Your task to perform on an android device: open app "Messenger Lite" (install if not already installed) Image 0: 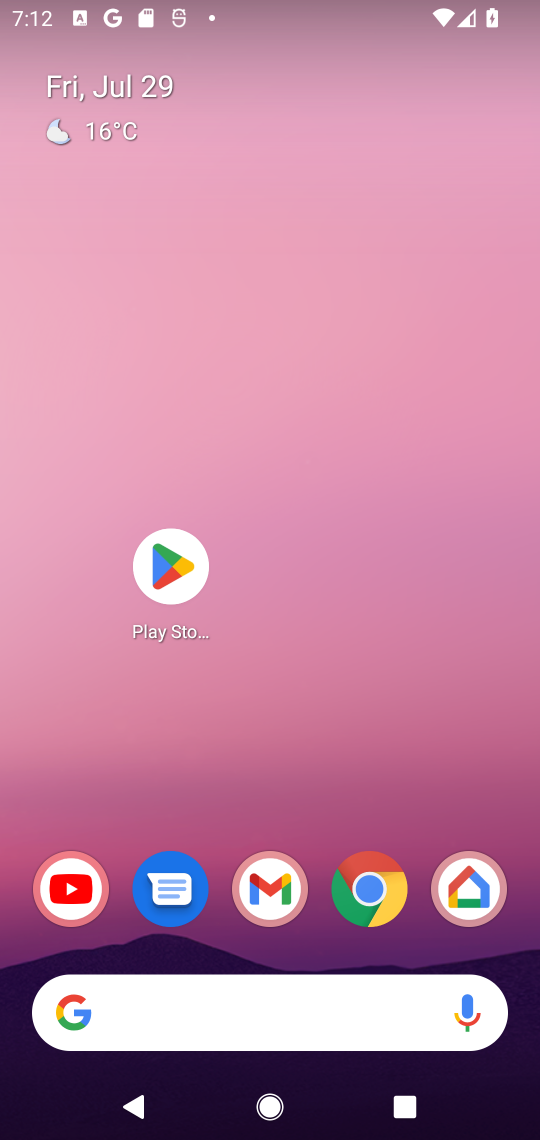
Step 0: press home button
Your task to perform on an android device: open app "Messenger Lite" (install if not already installed) Image 1: 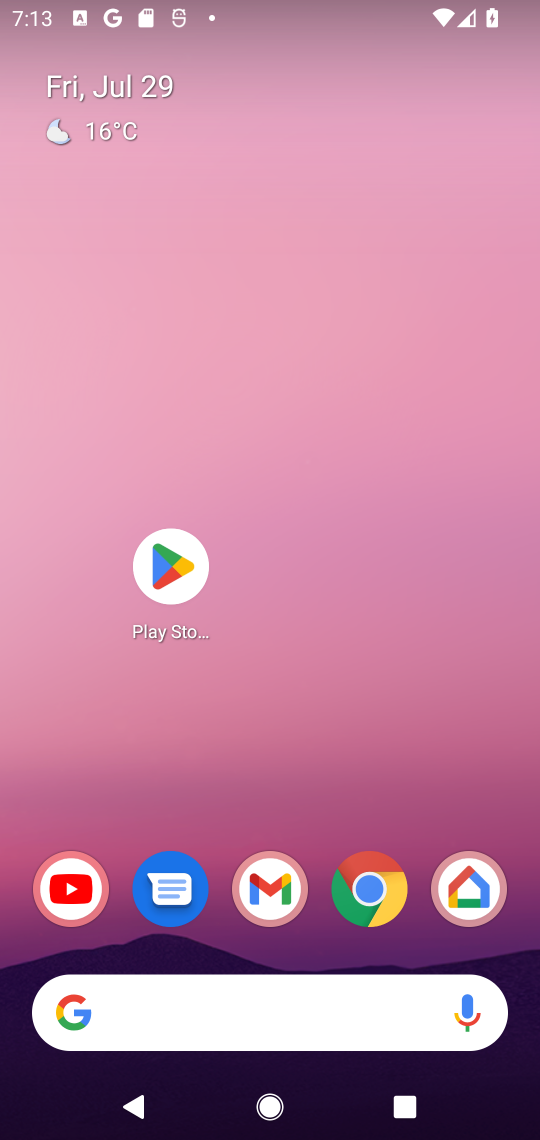
Step 1: click (167, 568)
Your task to perform on an android device: open app "Messenger Lite" (install if not already installed) Image 2: 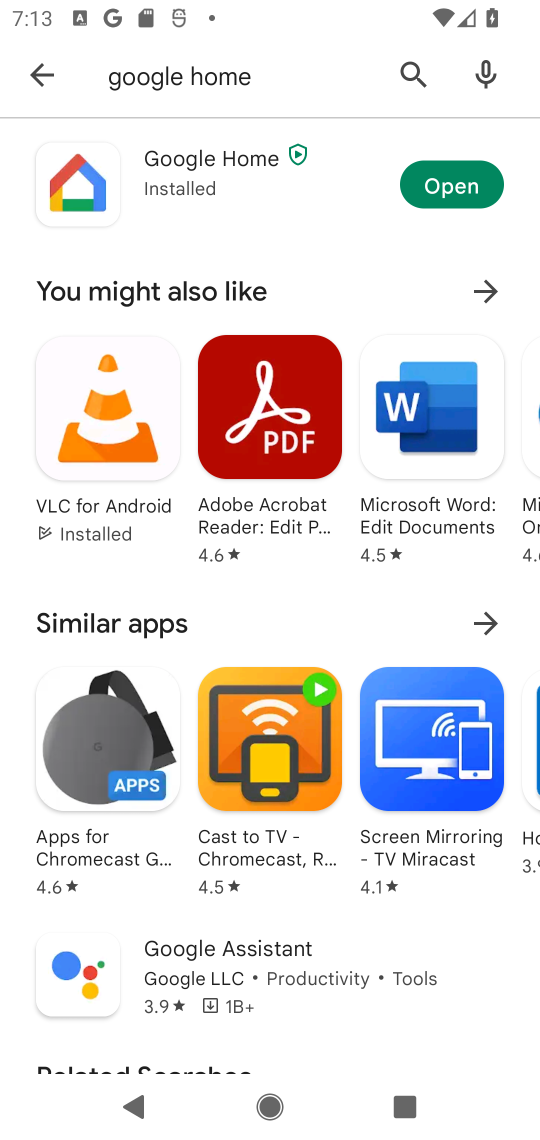
Step 2: click (411, 68)
Your task to perform on an android device: open app "Messenger Lite" (install if not already installed) Image 3: 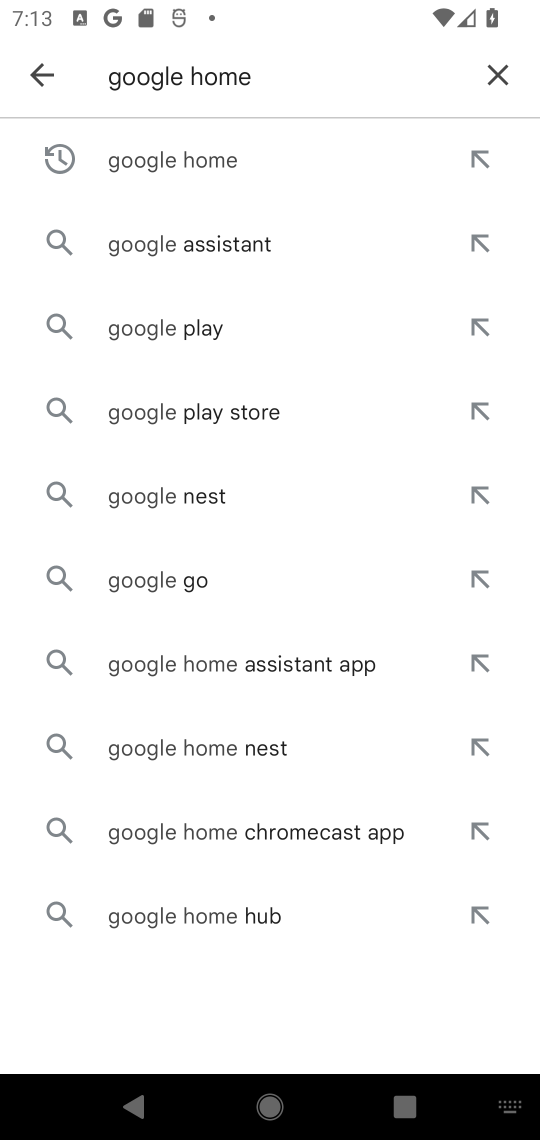
Step 3: click (496, 71)
Your task to perform on an android device: open app "Messenger Lite" (install if not already installed) Image 4: 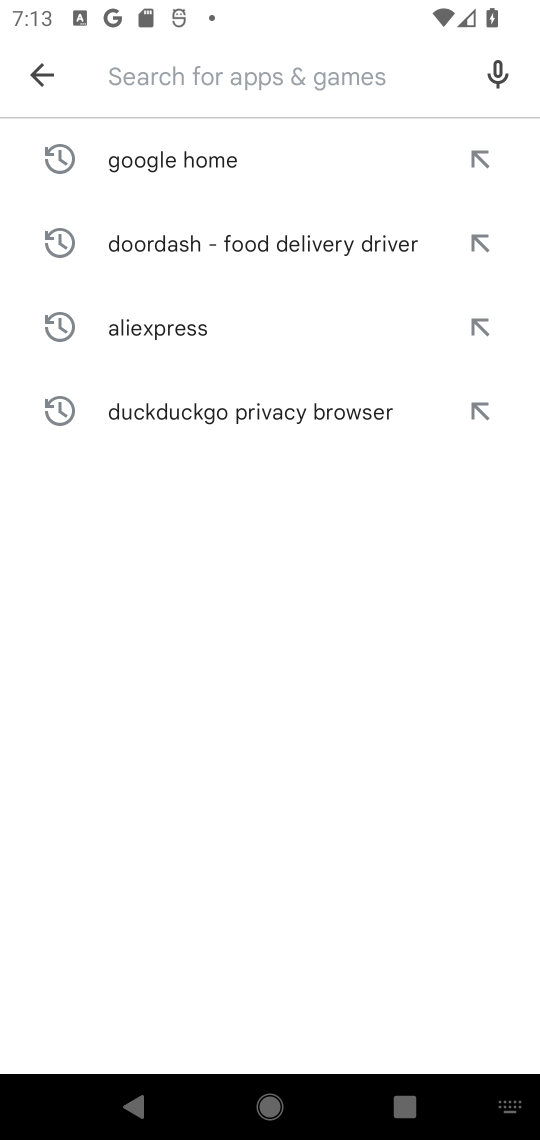
Step 4: type "Messenger Lite"
Your task to perform on an android device: open app "Messenger Lite" (install if not already installed) Image 5: 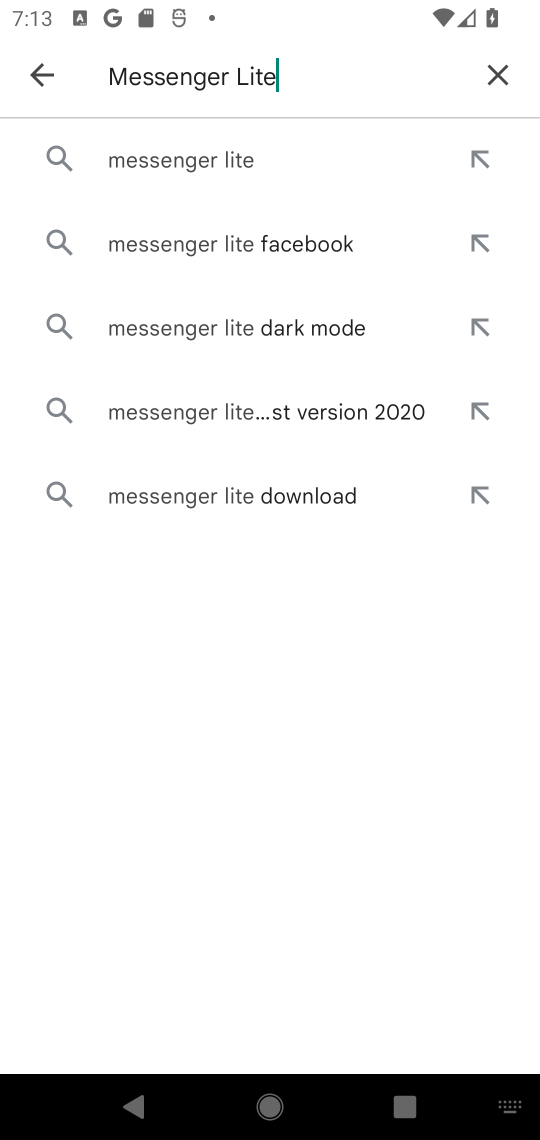
Step 5: click (213, 160)
Your task to perform on an android device: open app "Messenger Lite" (install if not already installed) Image 6: 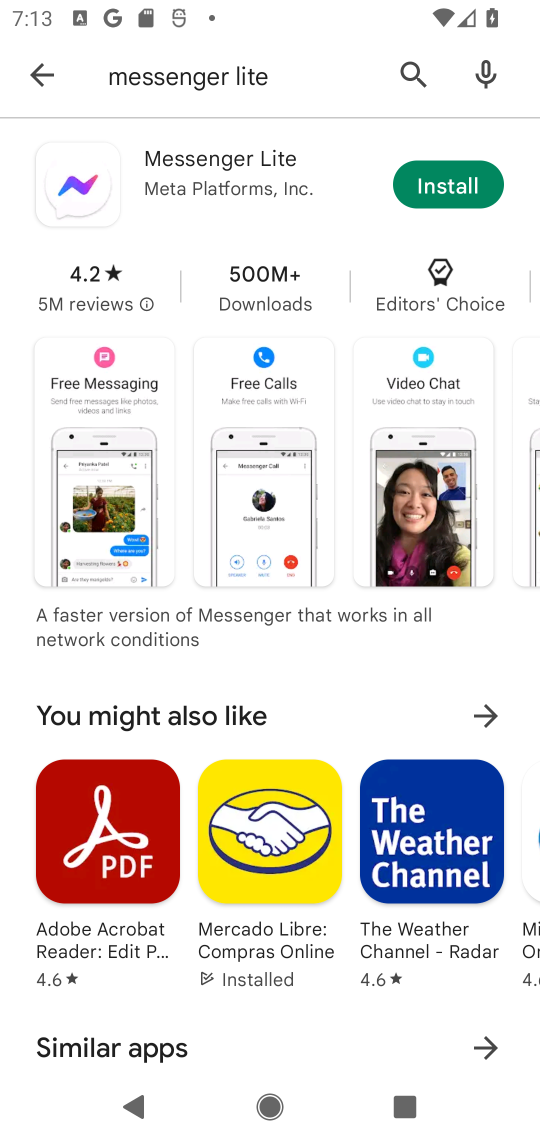
Step 6: click (450, 179)
Your task to perform on an android device: open app "Messenger Lite" (install if not already installed) Image 7: 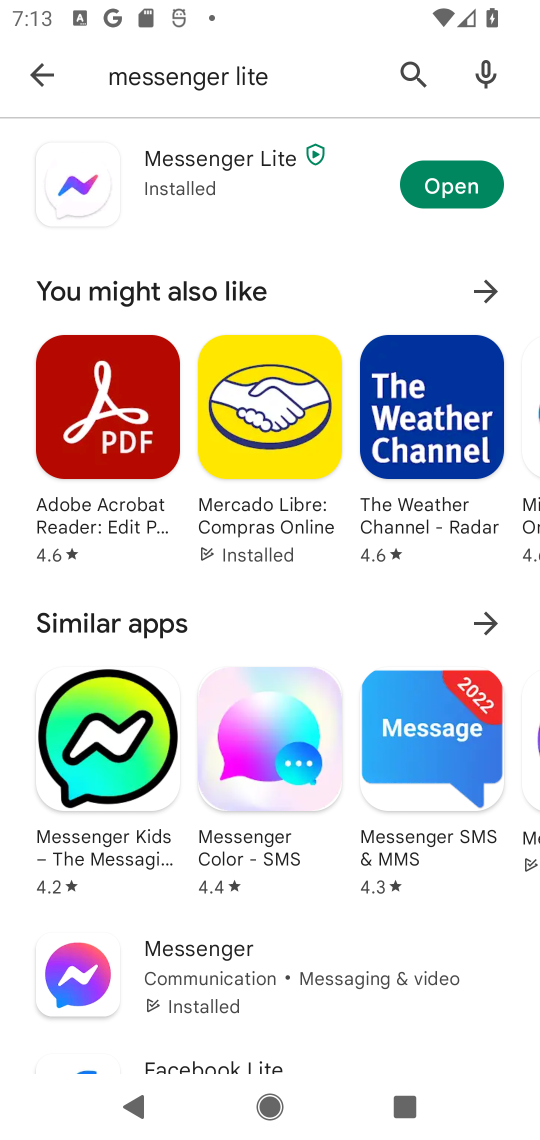
Step 7: click (448, 183)
Your task to perform on an android device: open app "Messenger Lite" (install if not already installed) Image 8: 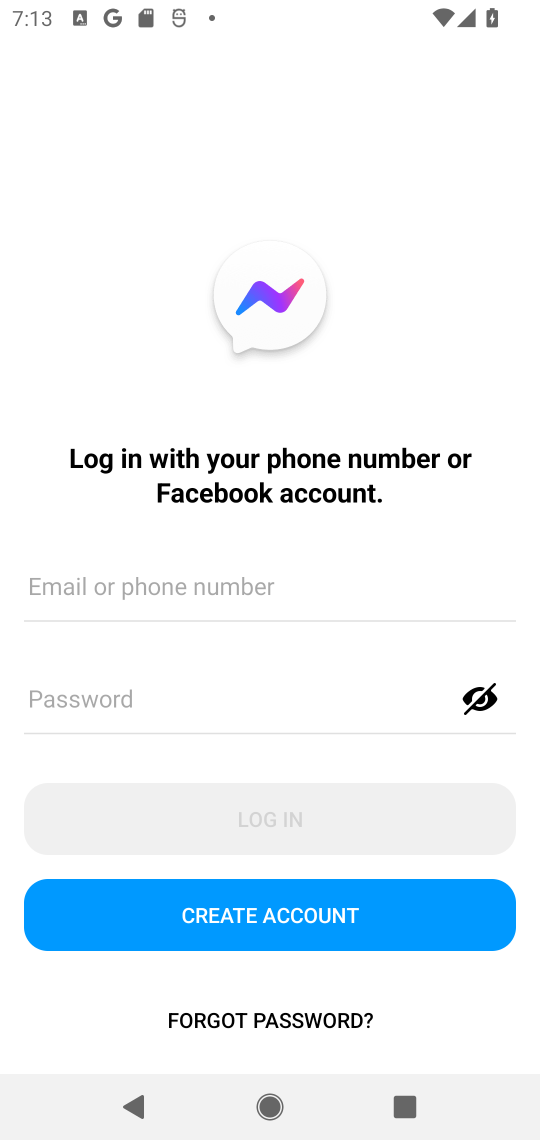
Step 8: task complete